Your task to perform on an android device: When is my next appointment? Image 0: 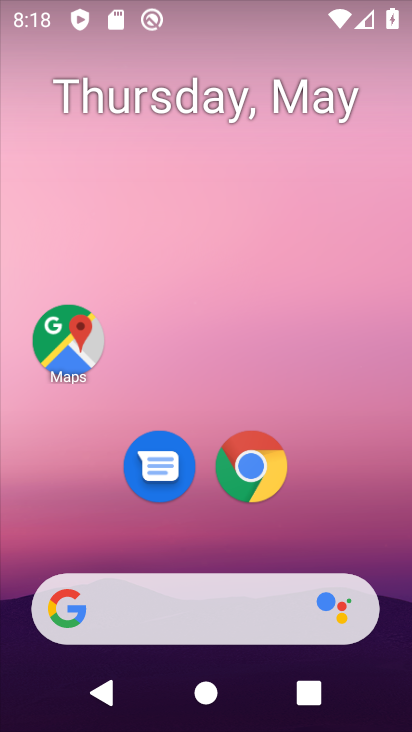
Step 0: drag from (407, 557) to (316, 153)
Your task to perform on an android device: When is my next appointment? Image 1: 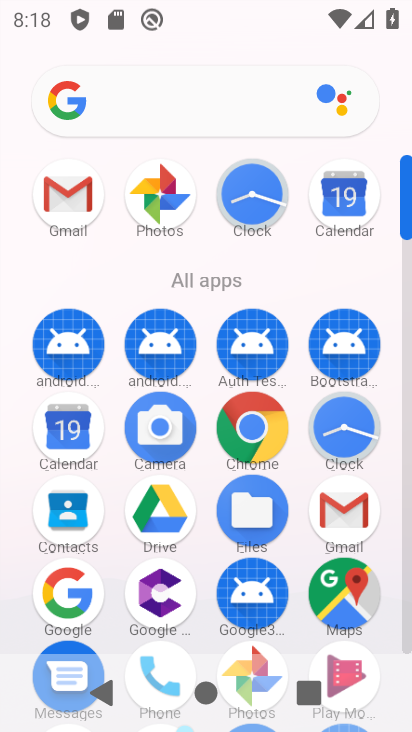
Step 1: click (349, 204)
Your task to perform on an android device: When is my next appointment? Image 2: 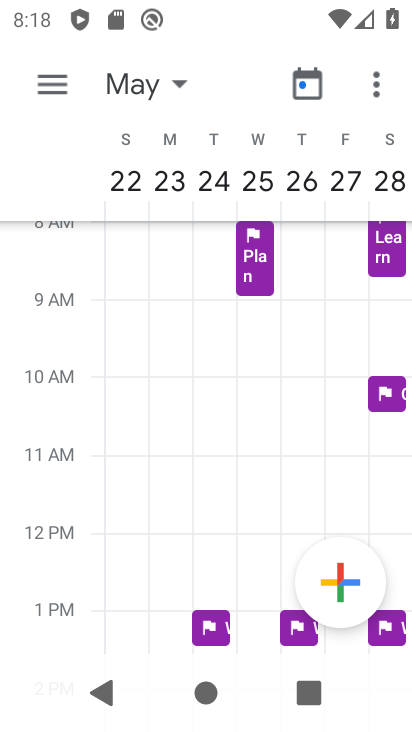
Step 2: click (136, 89)
Your task to perform on an android device: When is my next appointment? Image 3: 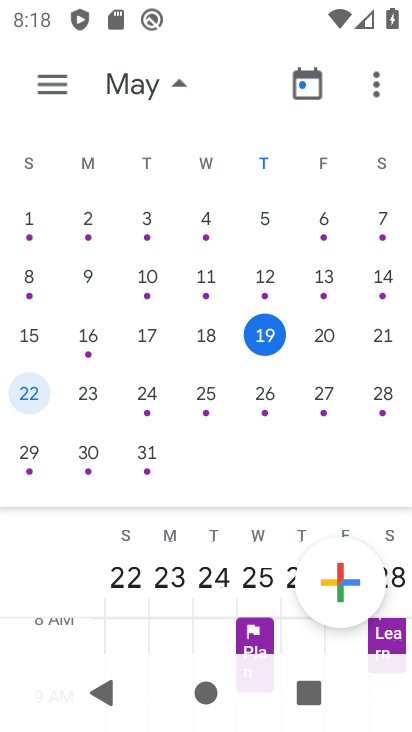
Step 3: click (61, 98)
Your task to perform on an android device: When is my next appointment? Image 4: 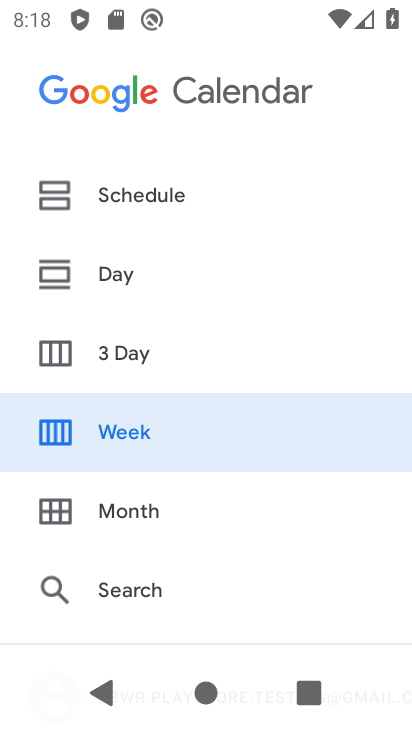
Step 4: click (139, 199)
Your task to perform on an android device: When is my next appointment? Image 5: 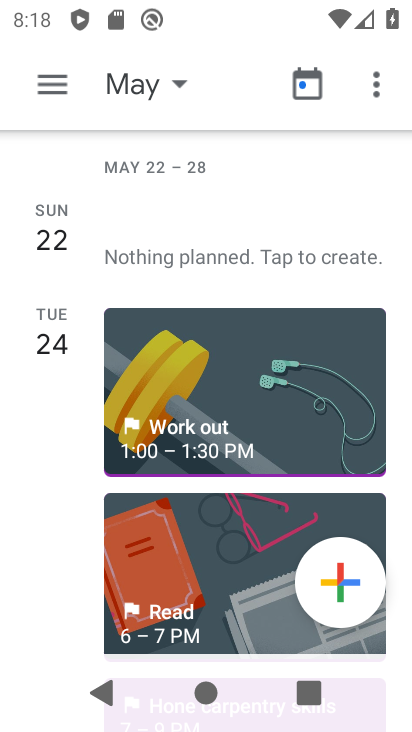
Step 5: click (138, 85)
Your task to perform on an android device: When is my next appointment? Image 6: 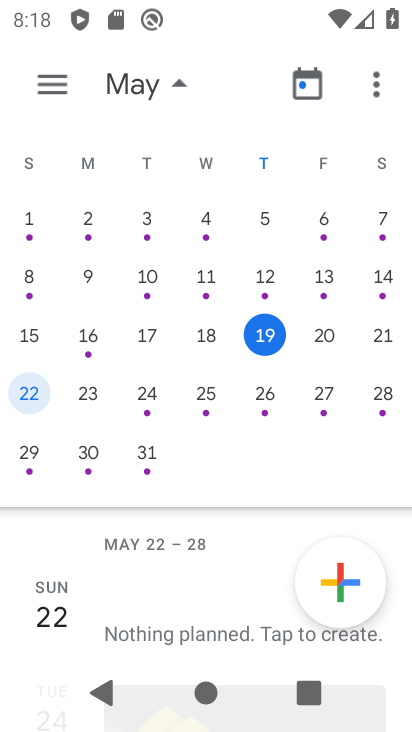
Step 6: click (343, 331)
Your task to perform on an android device: When is my next appointment? Image 7: 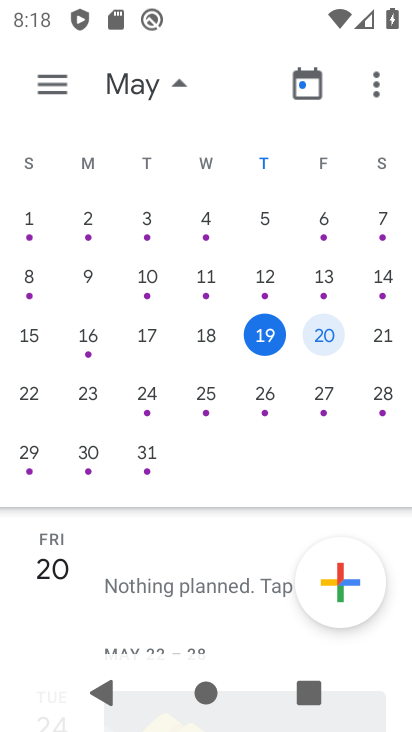
Step 7: click (135, 84)
Your task to perform on an android device: When is my next appointment? Image 8: 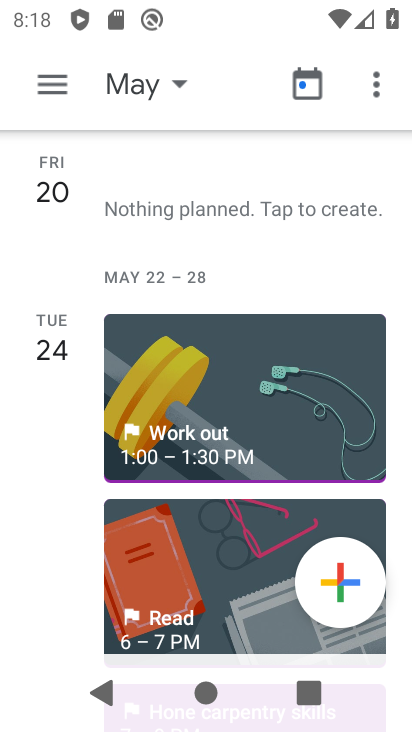
Step 8: task complete